Your task to perform on an android device: Open calendar and show me the third week of next month Image 0: 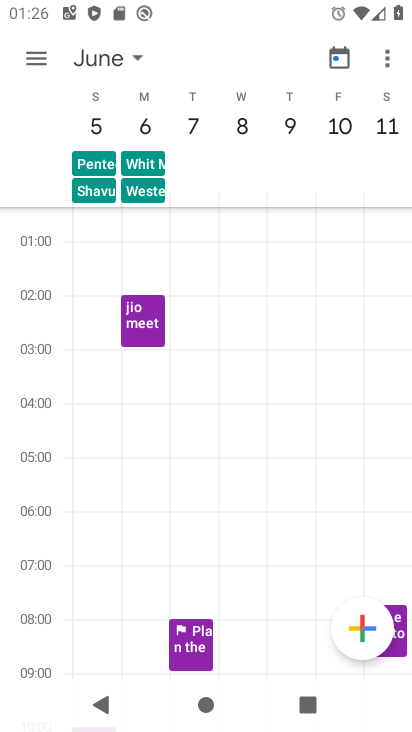
Step 0: press home button
Your task to perform on an android device: Open calendar and show me the third week of next month Image 1: 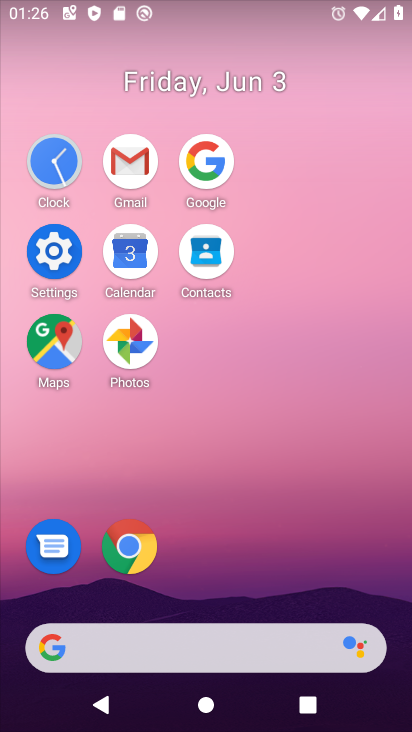
Step 1: click (141, 248)
Your task to perform on an android device: Open calendar and show me the third week of next month Image 2: 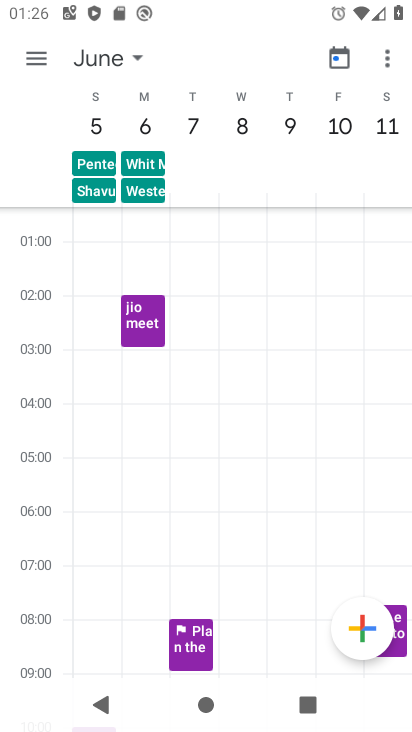
Step 2: click (137, 48)
Your task to perform on an android device: Open calendar and show me the third week of next month Image 3: 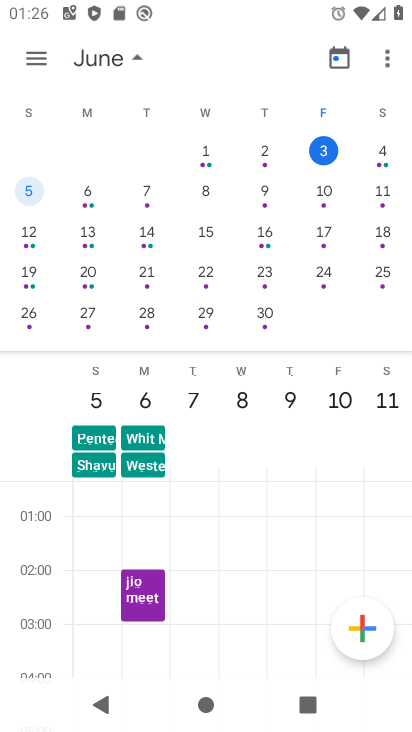
Step 3: drag from (391, 269) to (0, 32)
Your task to perform on an android device: Open calendar and show me the third week of next month Image 4: 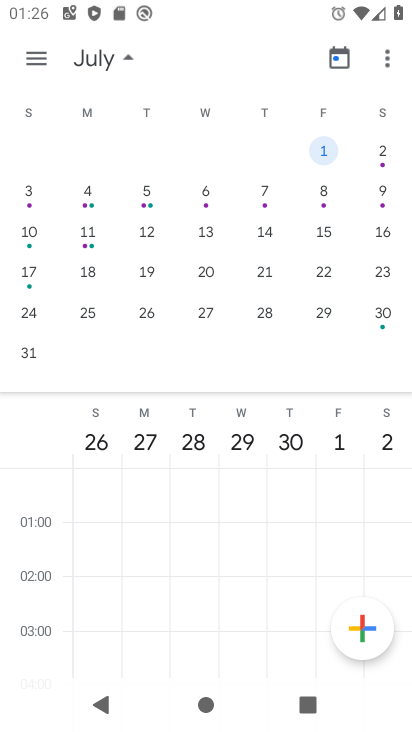
Step 4: click (28, 68)
Your task to perform on an android device: Open calendar and show me the third week of next month Image 5: 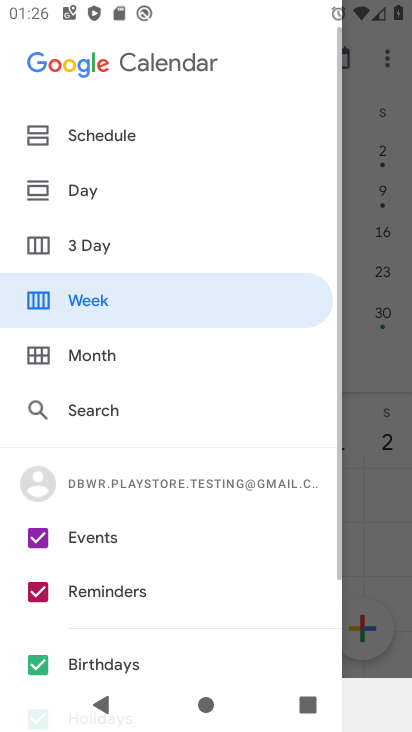
Step 5: click (122, 311)
Your task to perform on an android device: Open calendar and show me the third week of next month Image 6: 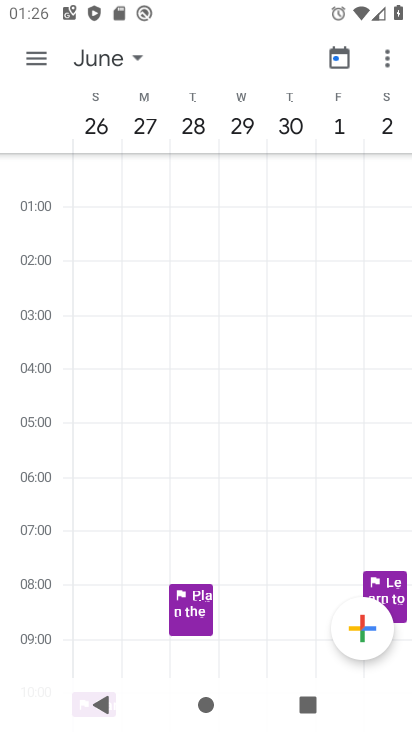
Step 6: task complete